Your task to perform on an android device: Go to CNN.com Image 0: 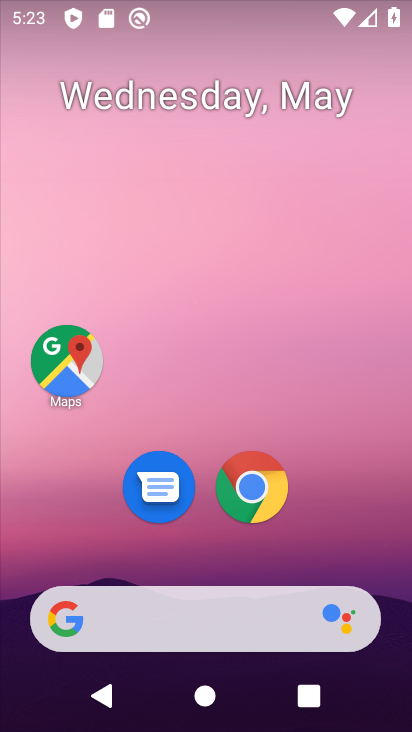
Step 0: click (239, 498)
Your task to perform on an android device: Go to CNN.com Image 1: 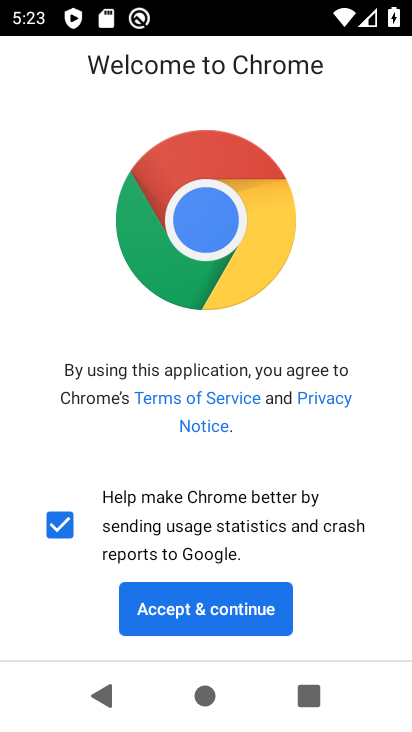
Step 1: click (206, 622)
Your task to perform on an android device: Go to CNN.com Image 2: 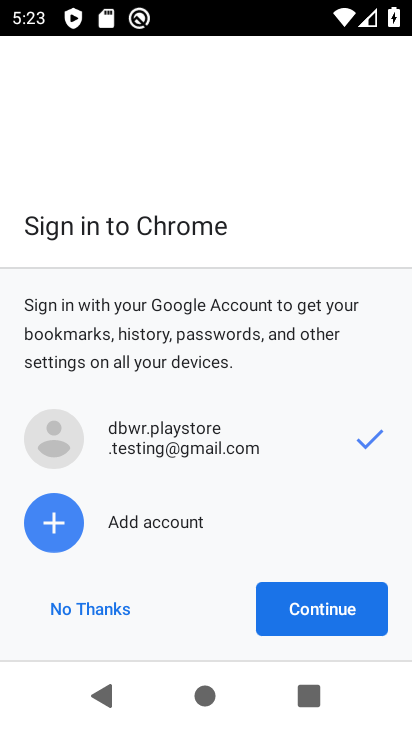
Step 2: click (267, 593)
Your task to perform on an android device: Go to CNN.com Image 3: 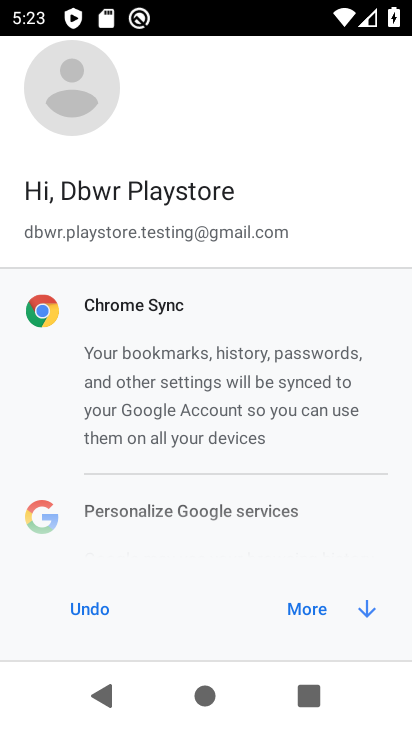
Step 3: click (299, 603)
Your task to perform on an android device: Go to CNN.com Image 4: 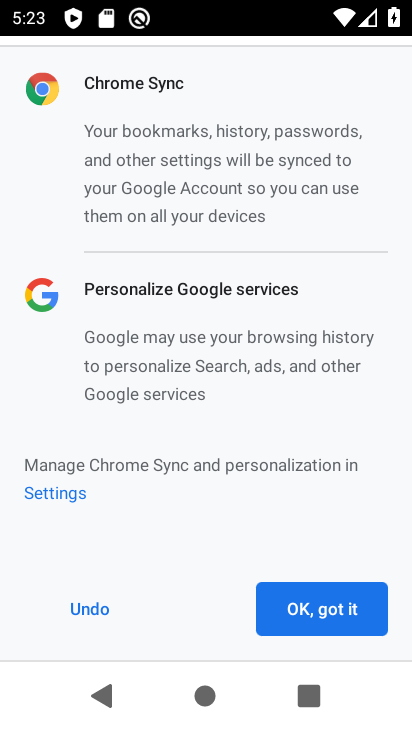
Step 4: click (299, 603)
Your task to perform on an android device: Go to CNN.com Image 5: 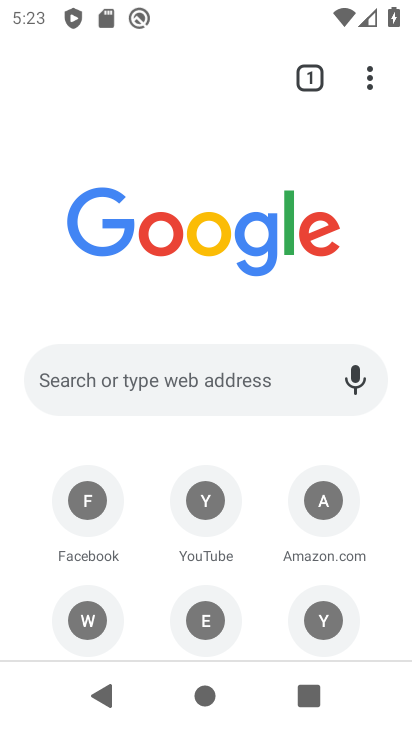
Step 5: click (150, 370)
Your task to perform on an android device: Go to CNN.com Image 6: 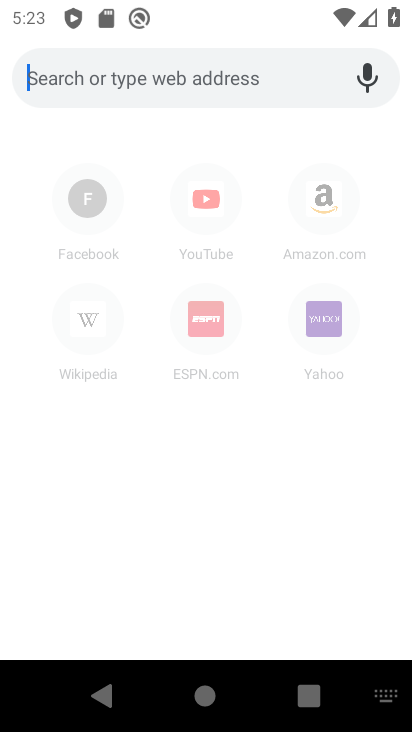
Step 6: type "www.cnn.com"
Your task to perform on an android device: Go to CNN.com Image 7: 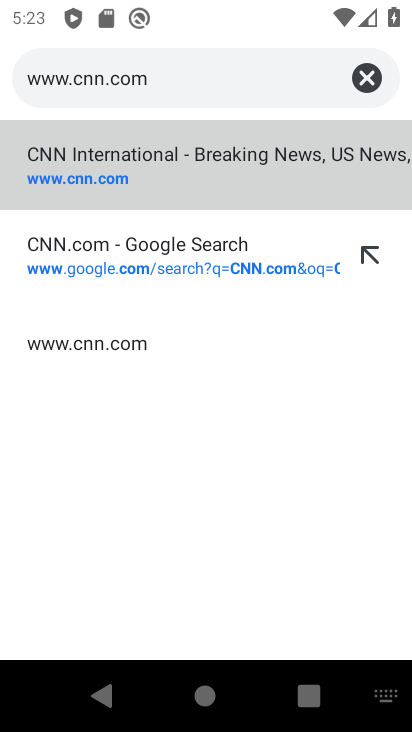
Step 7: click (112, 179)
Your task to perform on an android device: Go to CNN.com Image 8: 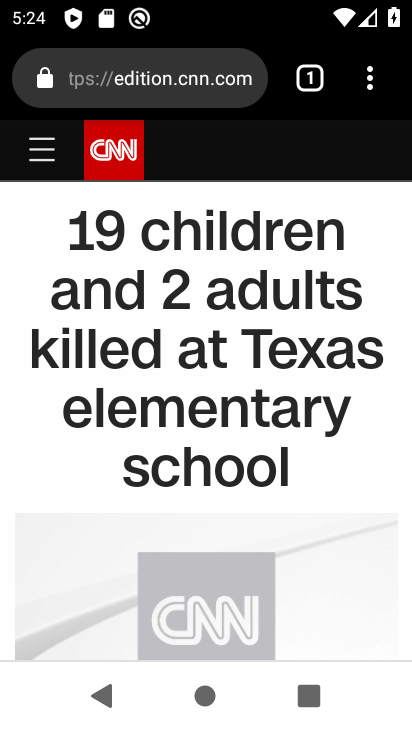
Step 8: task complete